Your task to perform on an android device: Search for vegetarian restaurants on Maps Image 0: 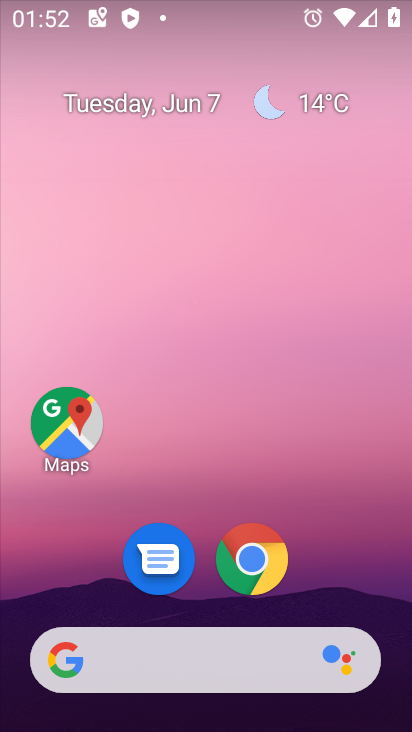
Step 0: click (64, 428)
Your task to perform on an android device: Search for vegetarian restaurants on Maps Image 1: 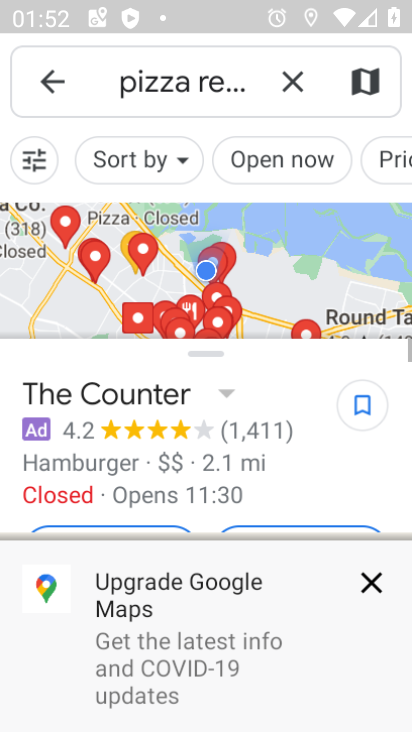
Step 1: click (290, 82)
Your task to perform on an android device: Search for vegetarian restaurants on Maps Image 2: 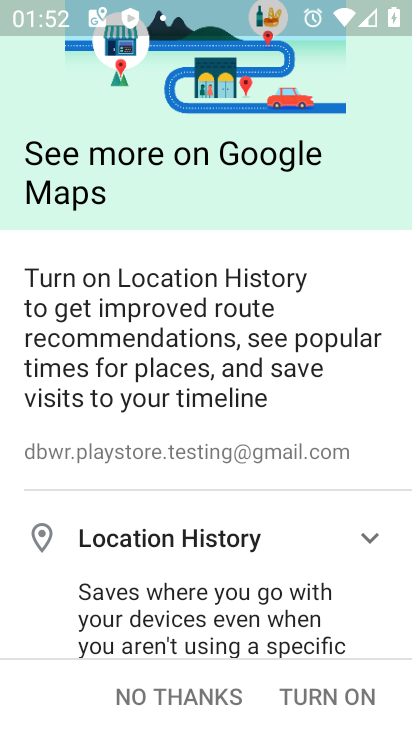
Step 2: click (172, 690)
Your task to perform on an android device: Search for vegetarian restaurants on Maps Image 3: 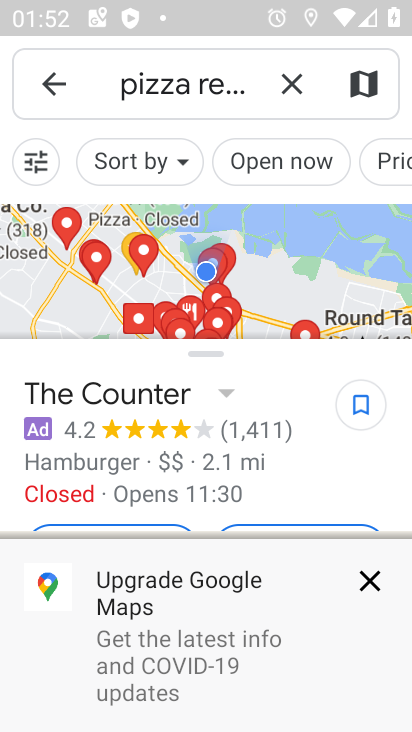
Step 3: click (296, 84)
Your task to perform on an android device: Search for vegetarian restaurants on Maps Image 4: 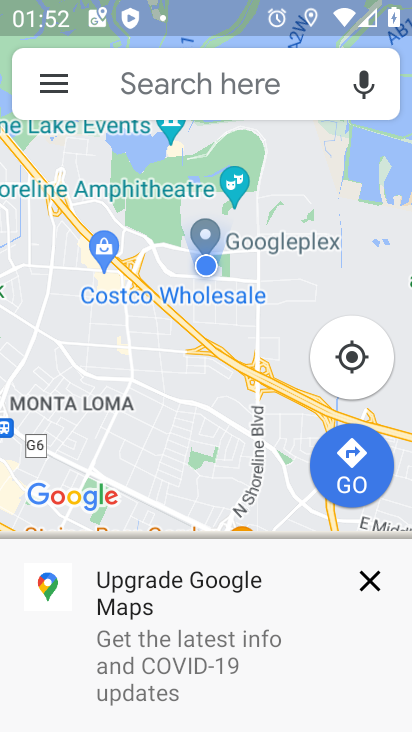
Step 4: click (216, 90)
Your task to perform on an android device: Search for vegetarian restaurants on Maps Image 5: 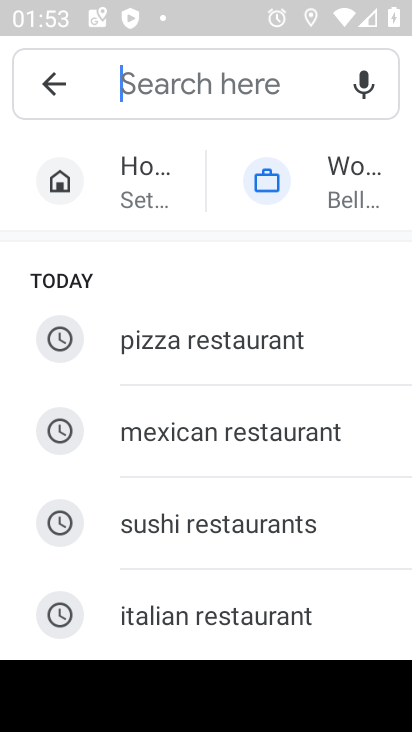
Step 5: type "vegetarian restaurants"
Your task to perform on an android device: Search for vegetarian restaurants on Maps Image 6: 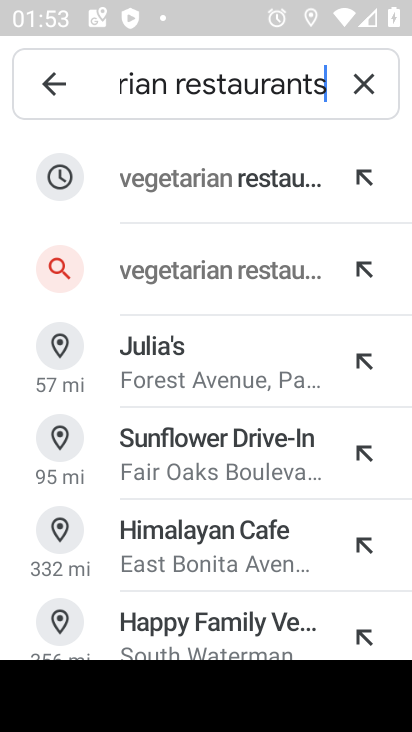
Step 6: click (259, 174)
Your task to perform on an android device: Search for vegetarian restaurants on Maps Image 7: 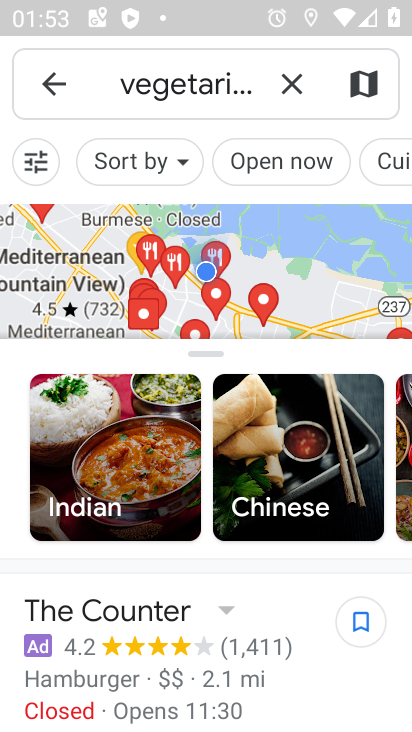
Step 7: task complete